Your task to perform on an android device: Search for "apple airpods pro" on amazon.com, select the first entry, and add it to the cart. Image 0: 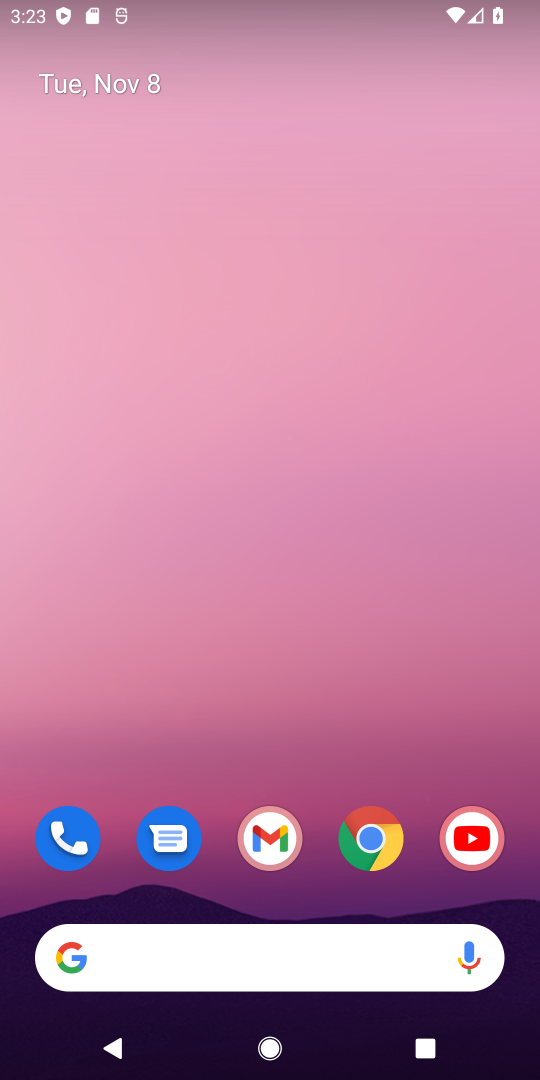
Step 0: drag from (358, 1022) to (361, 145)
Your task to perform on an android device: Search for "apple airpods pro" on amazon.com, select the first entry, and add it to the cart. Image 1: 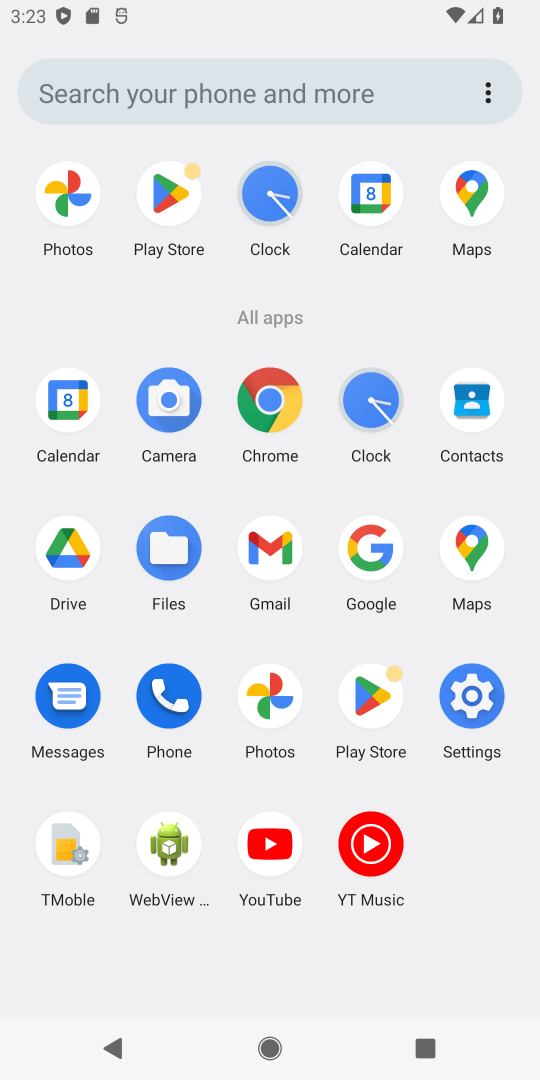
Step 1: click (270, 393)
Your task to perform on an android device: Search for "apple airpods pro" on amazon.com, select the first entry, and add it to the cart. Image 2: 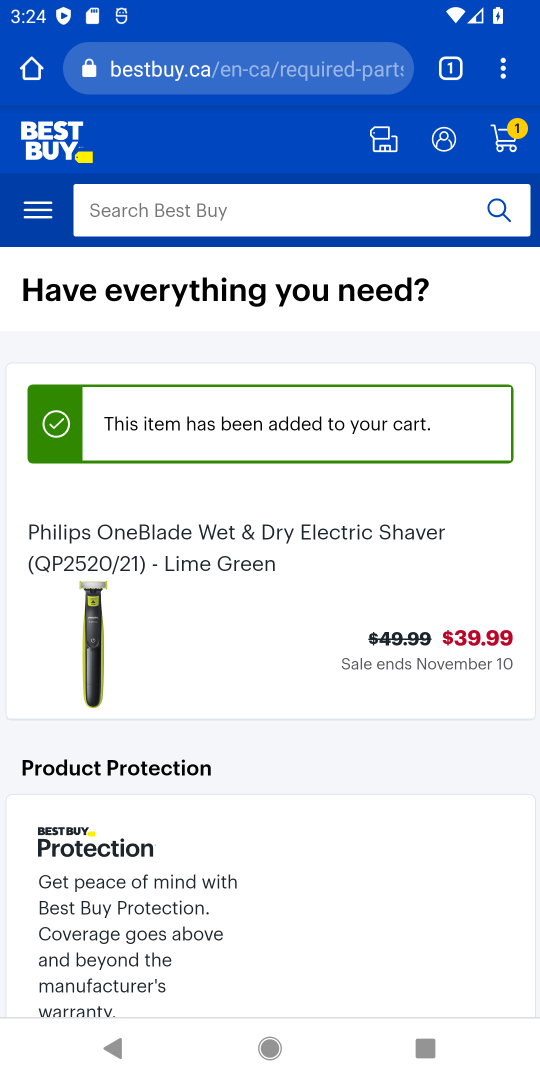
Step 2: click (323, 68)
Your task to perform on an android device: Search for "apple airpods pro" on amazon.com, select the first entry, and add it to the cart. Image 3: 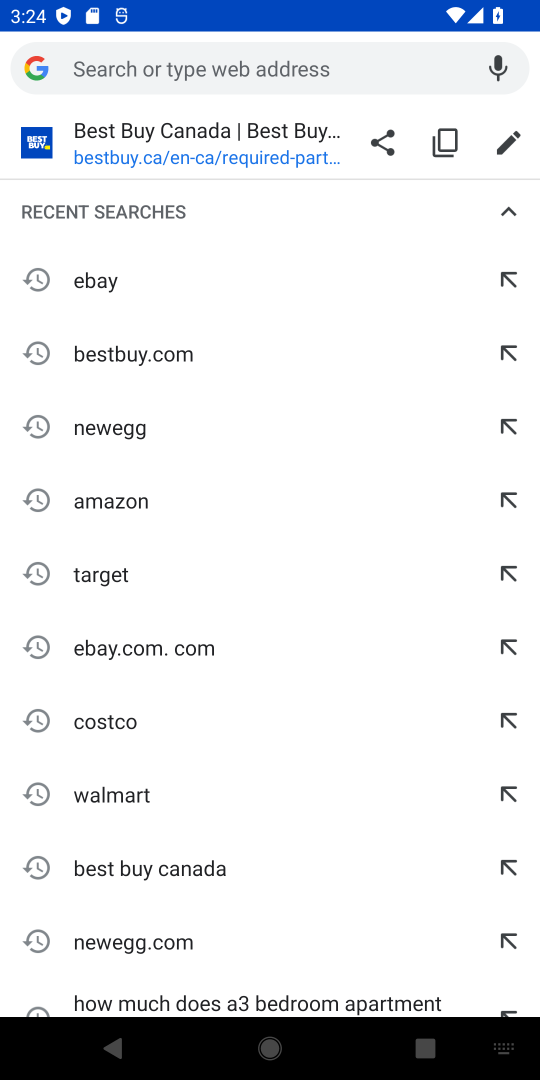
Step 3: type " amazon.com"
Your task to perform on an android device: Search for "apple airpods pro" on amazon.com, select the first entry, and add it to the cart. Image 4: 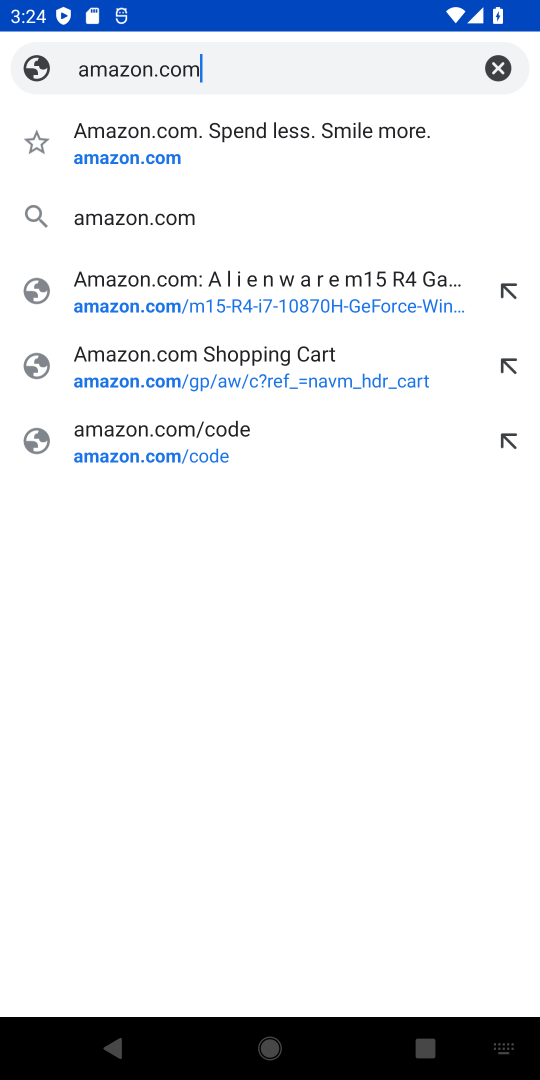
Step 4: click (134, 154)
Your task to perform on an android device: Search for "apple airpods pro" on amazon.com, select the first entry, and add it to the cart. Image 5: 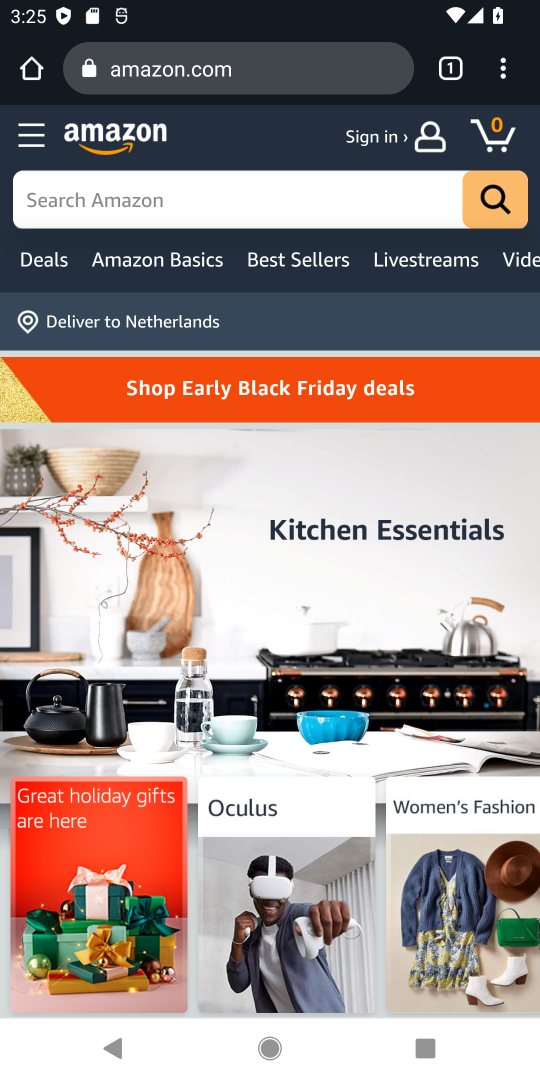
Step 5: click (189, 181)
Your task to perform on an android device: Search for "apple airpods pro" on amazon.com, select the first entry, and add it to the cart. Image 6: 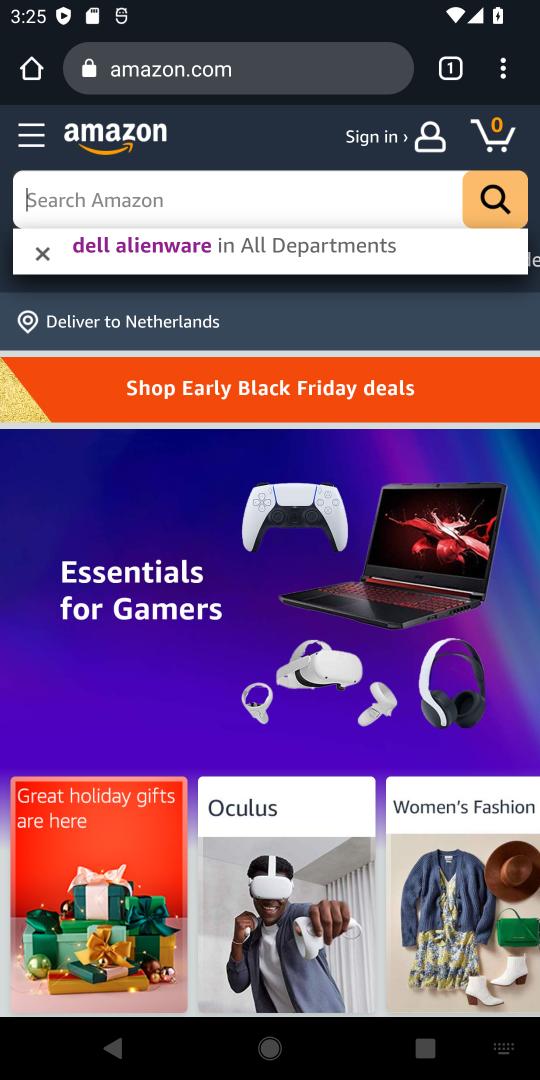
Step 6: type "apple airpods pro"
Your task to perform on an android device: Search for "apple airpods pro" on amazon.com, select the first entry, and add it to the cart. Image 7: 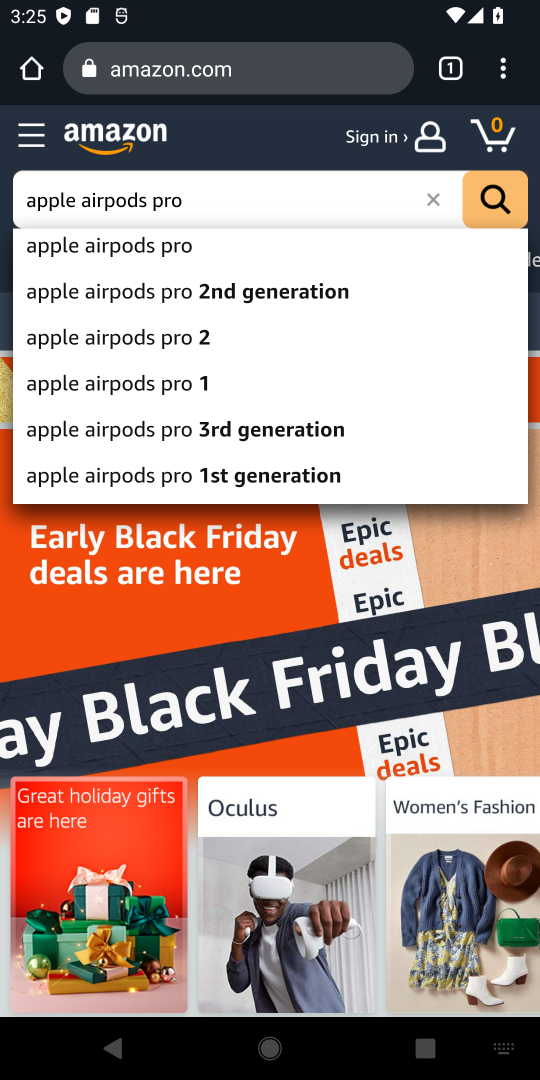
Step 7: click (162, 246)
Your task to perform on an android device: Search for "apple airpods pro" on amazon.com, select the first entry, and add it to the cart. Image 8: 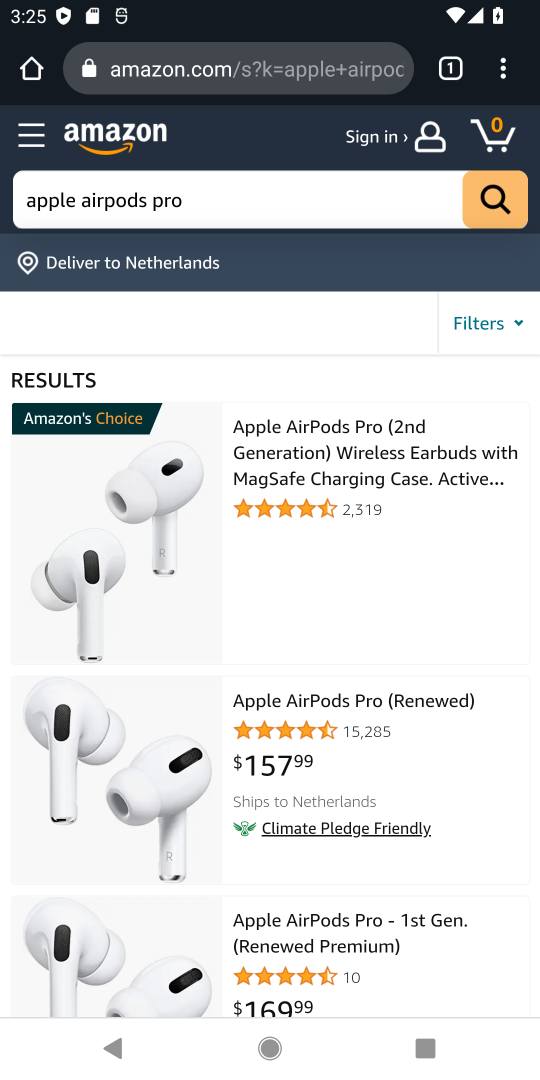
Step 8: click (153, 585)
Your task to perform on an android device: Search for "apple airpods pro" on amazon.com, select the first entry, and add it to the cart. Image 9: 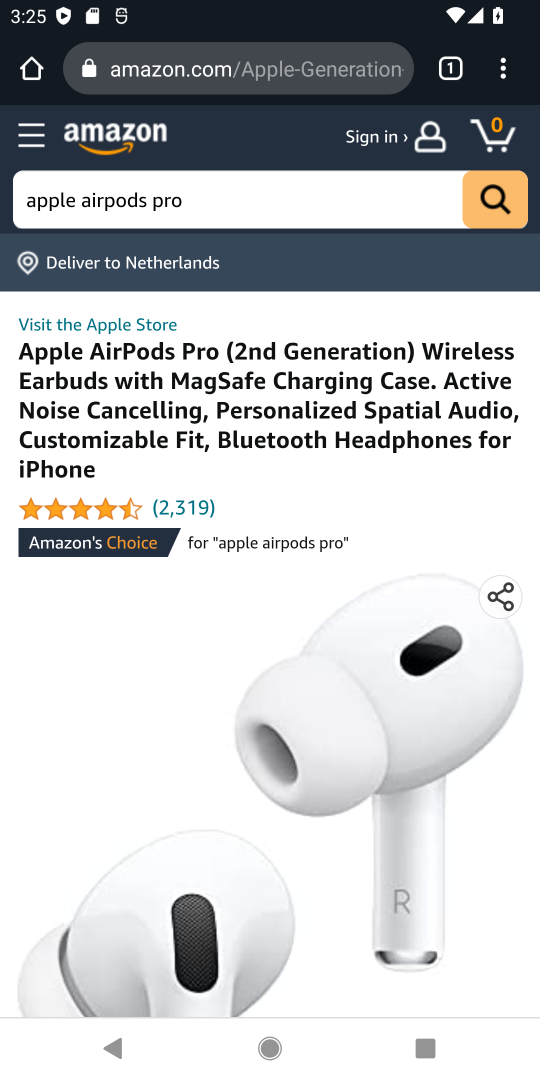
Step 9: task complete